Your task to perform on an android device: see sites visited before in the chrome app Image 0: 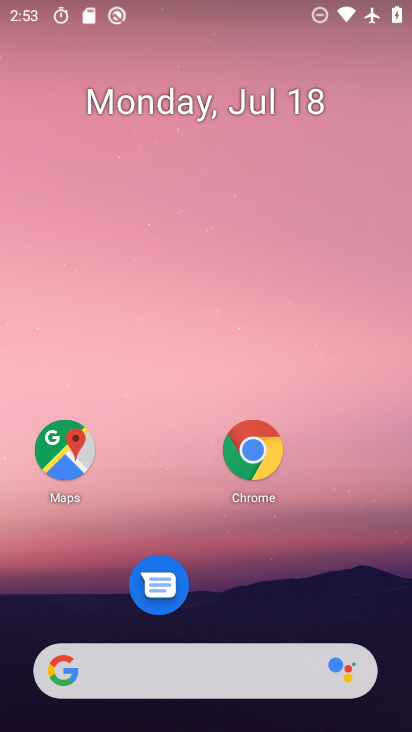
Step 0: click (264, 438)
Your task to perform on an android device: see sites visited before in the chrome app Image 1: 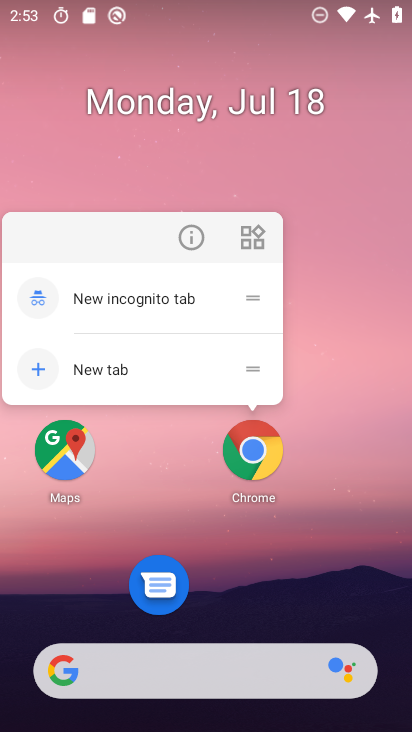
Step 1: click (250, 451)
Your task to perform on an android device: see sites visited before in the chrome app Image 2: 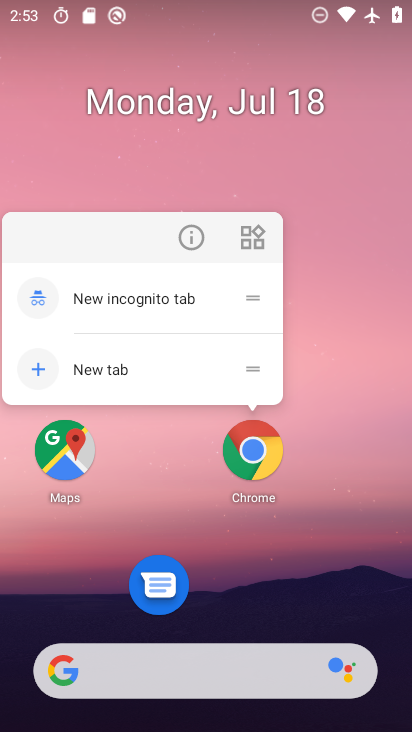
Step 2: click (250, 451)
Your task to perform on an android device: see sites visited before in the chrome app Image 3: 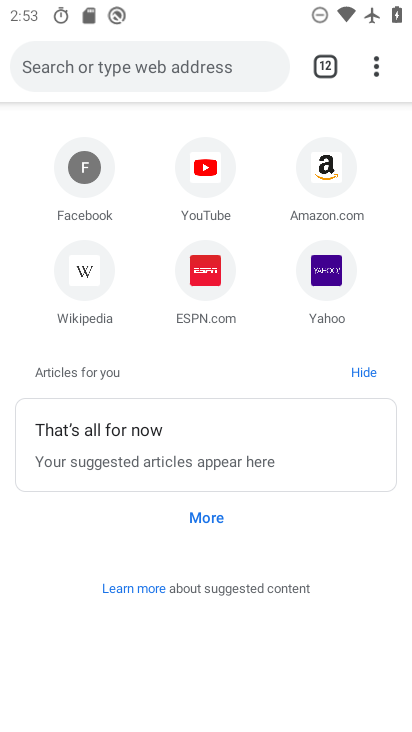
Step 3: task complete